Your task to perform on an android device: Do I have any events today? Image 0: 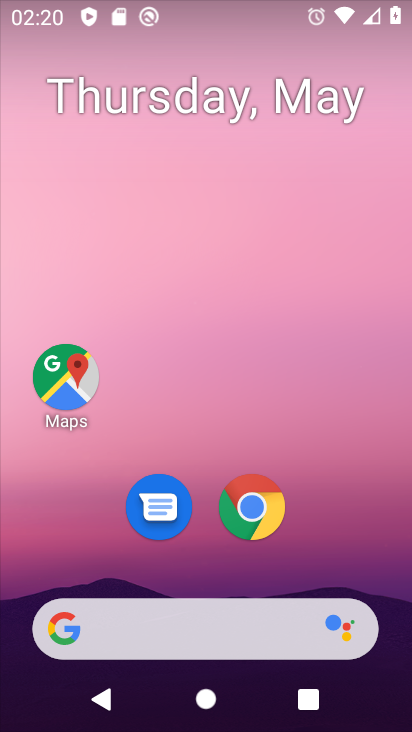
Step 0: drag from (390, 576) to (276, 131)
Your task to perform on an android device: Do I have any events today? Image 1: 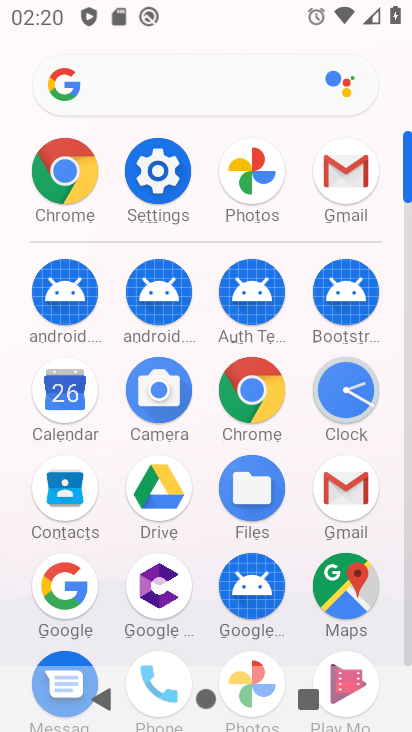
Step 1: click (65, 392)
Your task to perform on an android device: Do I have any events today? Image 2: 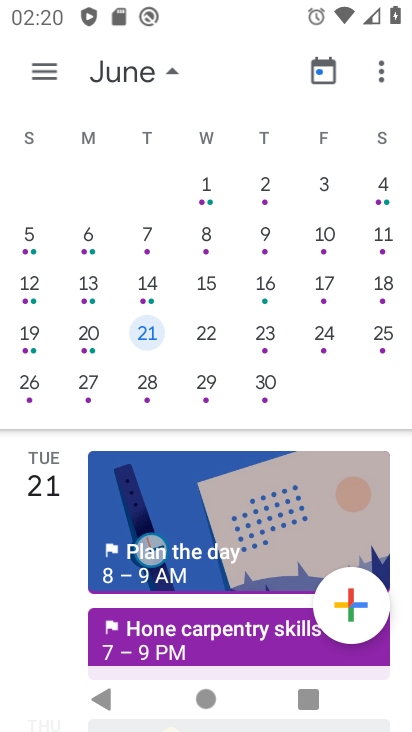
Step 2: task complete